Your task to perform on an android device: Open Android settings Image 0: 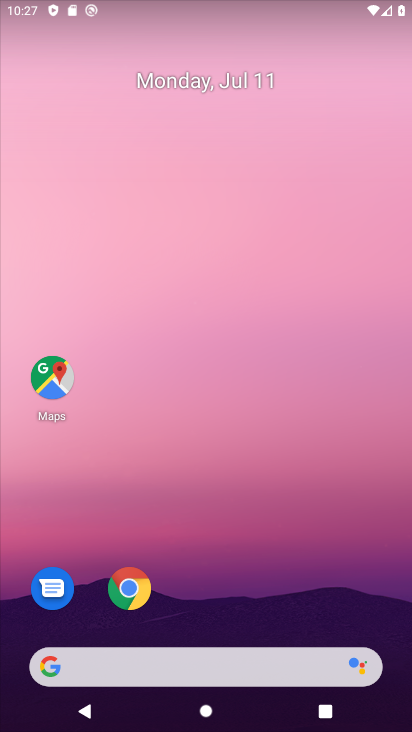
Step 0: drag from (267, 597) to (234, 112)
Your task to perform on an android device: Open Android settings Image 1: 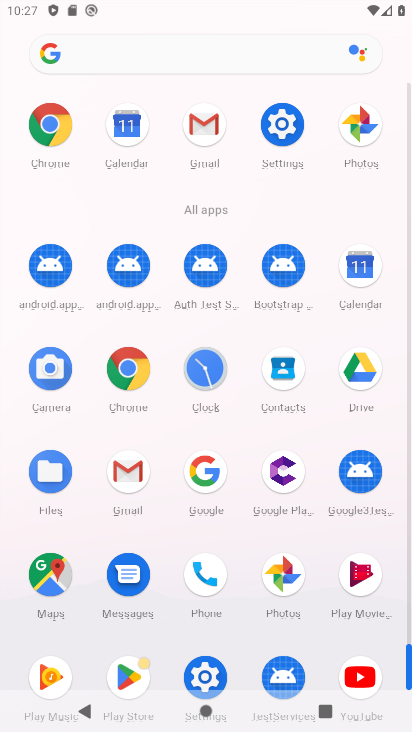
Step 1: click (281, 123)
Your task to perform on an android device: Open Android settings Image 2: 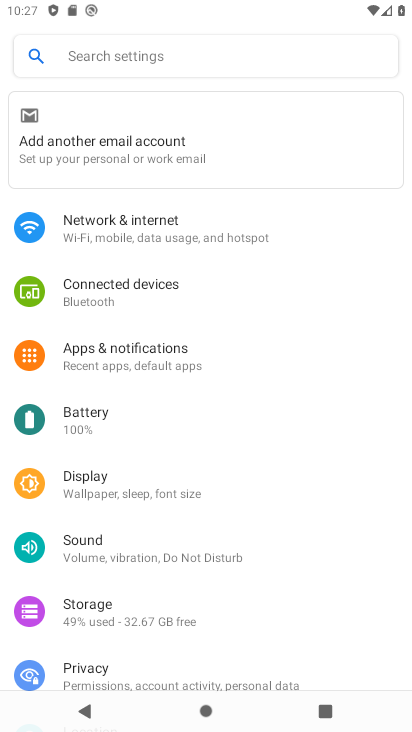
Step 2: task complete